Your task to perform on an android device: Turn off the flashlight Image 0: 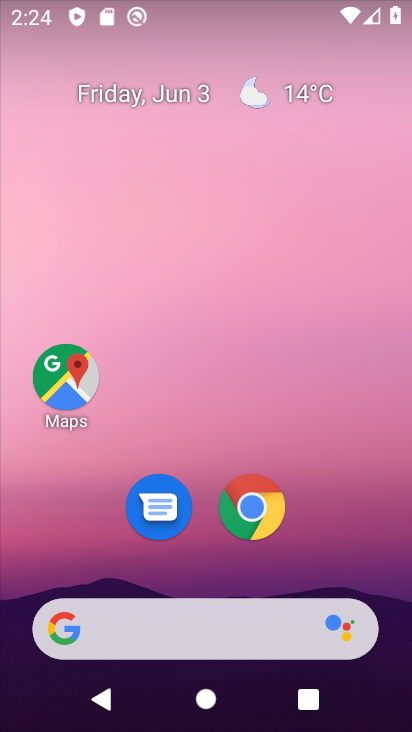
Step 0: drag from (330, 542) to (269, 160)
Your task to perform on an android device: Turn off the flashlight Image 1: 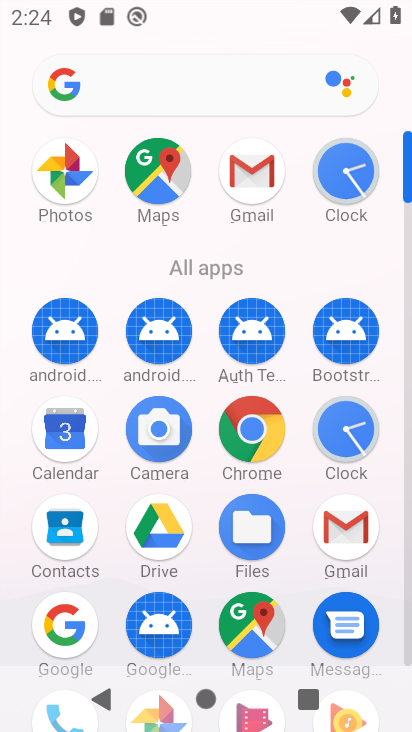
Step 1: drag from (283, 571) to (294, 286)
Your task to perform on an android device: Turn off the flashlight Image 2: 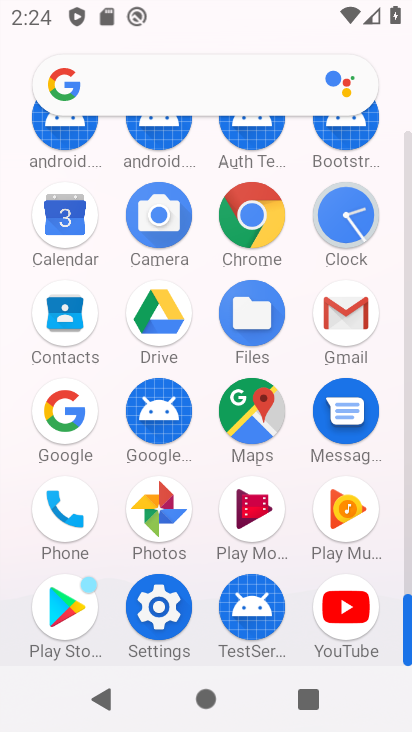
Step 2: click (157, 610)
Your task to perform on an android device: Turn off the flashlight Image 3: 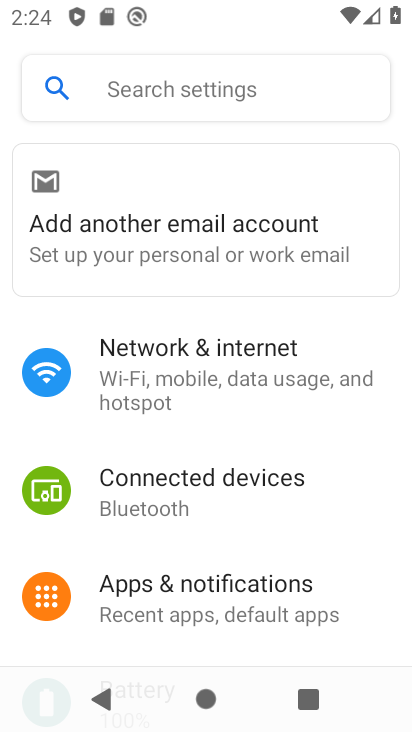
Step 3: drag from (228, 454) to (282, 336)
Your task to perform on an android device: Turn off the flashlight Image 4: 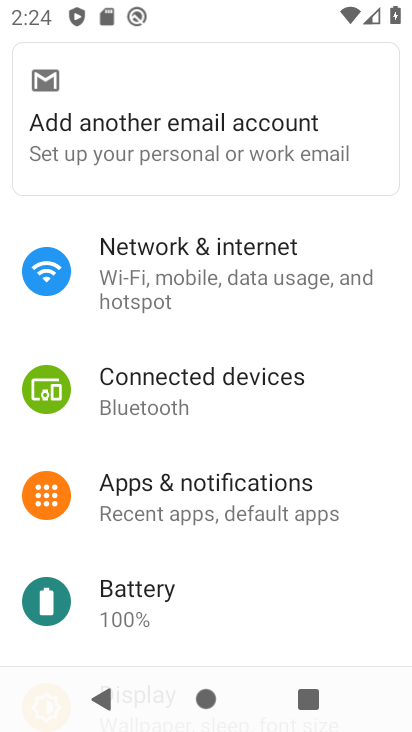
Step 4: drag from (213, 564) to (277, 421)
Your task to perform on an android device: Turn off the flashlight Image 5: 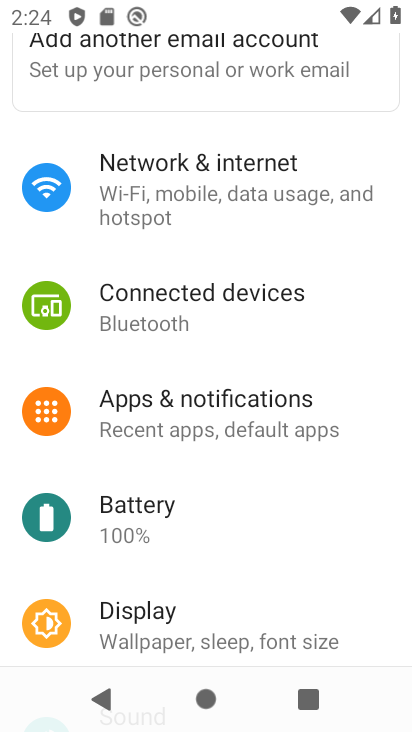
Step 5: drag from (218, 561) to (288, 441)
Your task to perform on an android device: Turn off the flashlight Image 6: 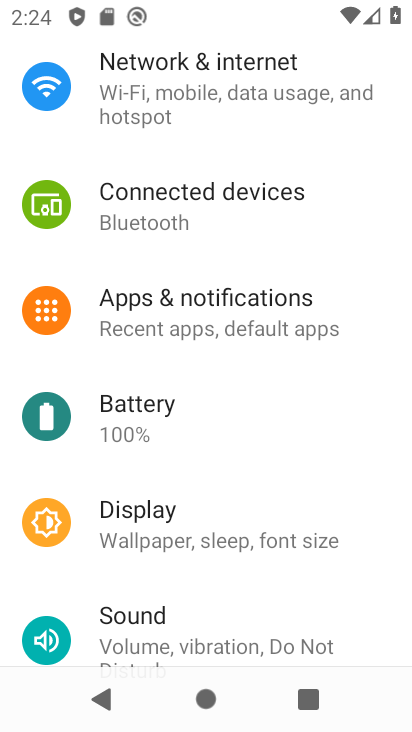
Step 6: drag from (255, 573) to (311, 472)
Your task to perform on an android device: Turn off the flashlight Image 7: 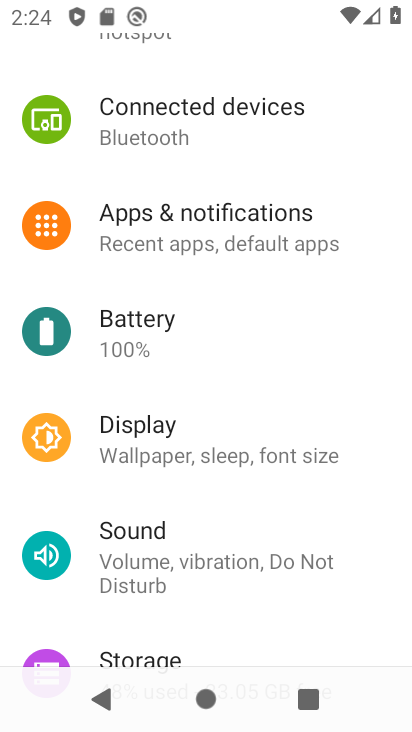
Step 7: click (302, 469)
Your task to perform on an android device: Turn off the flashlight Image 8: 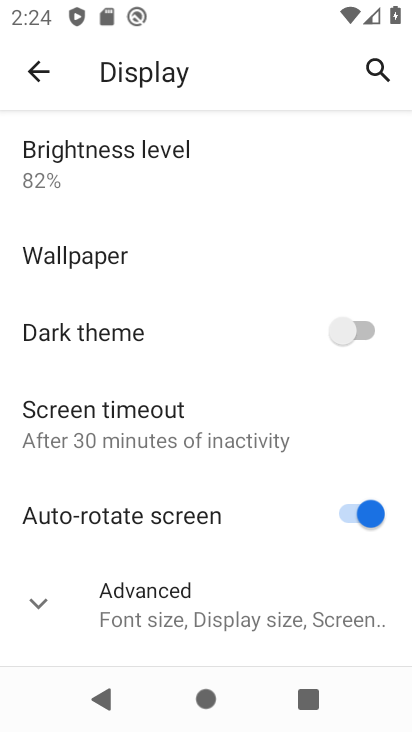
Step 8: click (242, 607)
Your task to perform on an android device: Turn off the flashlight Image 9: 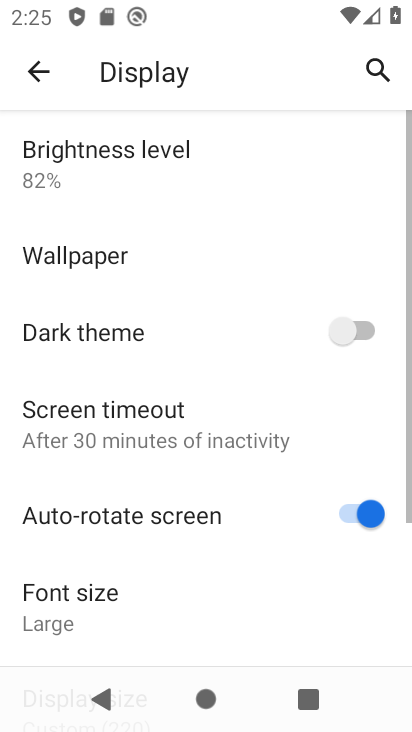
Step 9: drag from (241, 570) to (273, 349)
Your task to perform on an android device: Turn off the flashlight Image 10: 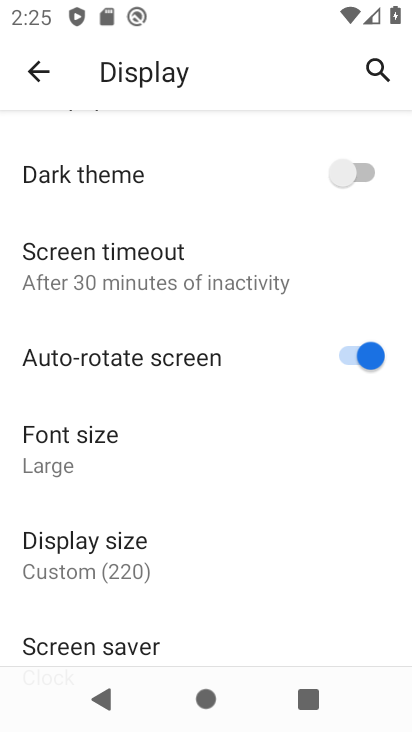
Step 10: drag from (244, 567) to (283, 396)
Your task to perform on an android device: Turn off the flashlight Image 11: 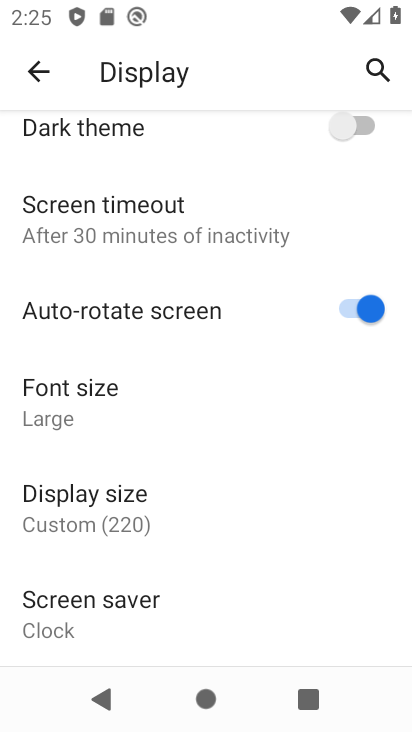
Step 11: drag from (304, 544) to (347, 267)
Your task to perform on an android device: Turn off the flashlight Image 12: 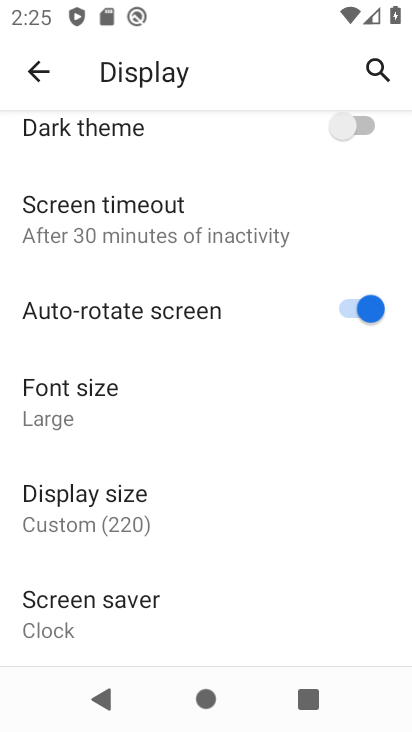
Step 12: click (52, 70)
Your task to perform on an android device: Turn off the flashlight Image 13: 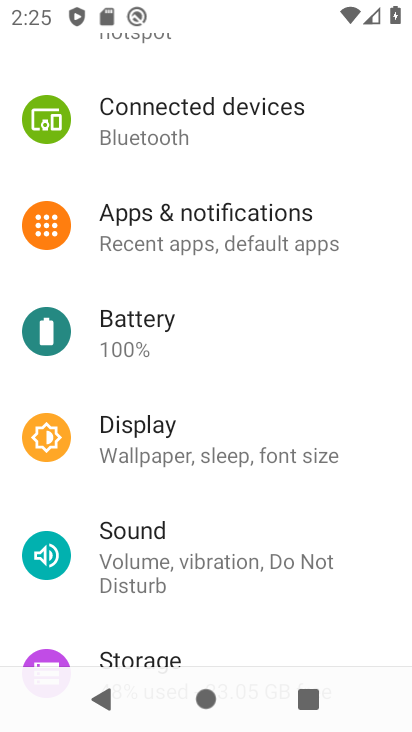
Step 13: drag from (213, 591) to (246, 455)
Your task to perform on an android device: Turn off the flashlight Image 14: 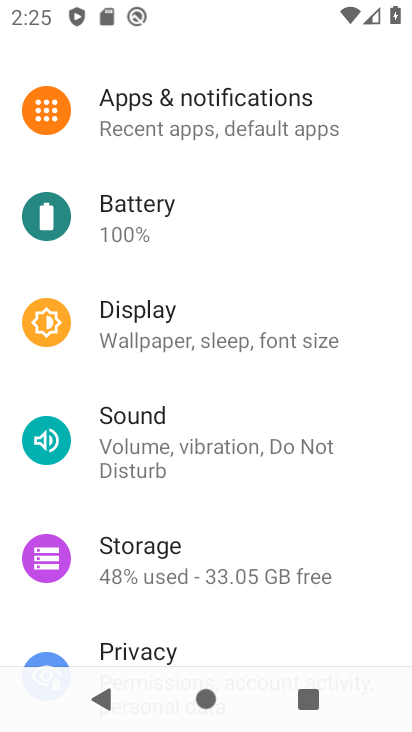
Step 14: drag from (212, 608) to (289, 469)
Your task to perform on an android device: Turn off the flashlight Image 15: 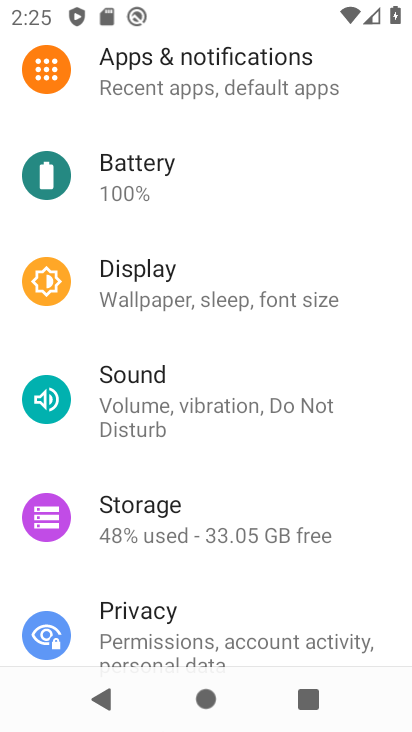
Step 15: drag from (215, 599) to (257, 420)
Your task to perform on an android device: Turn off the flashlight Image 16: 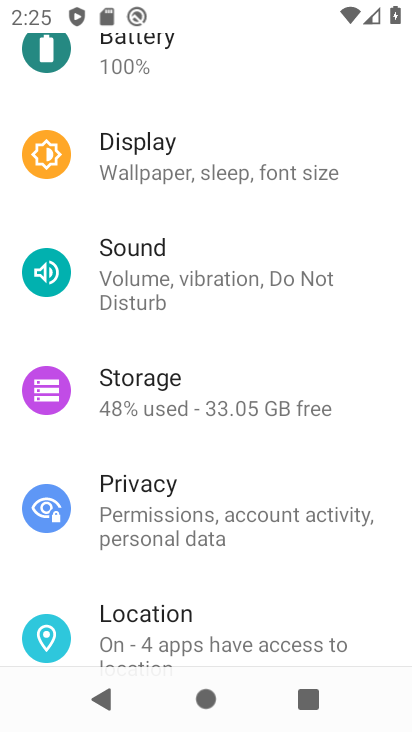
Step 16: drag from (184, 577) to (262, 424)
Your task to perform on an android device: Turn off the flashlight Image 17: 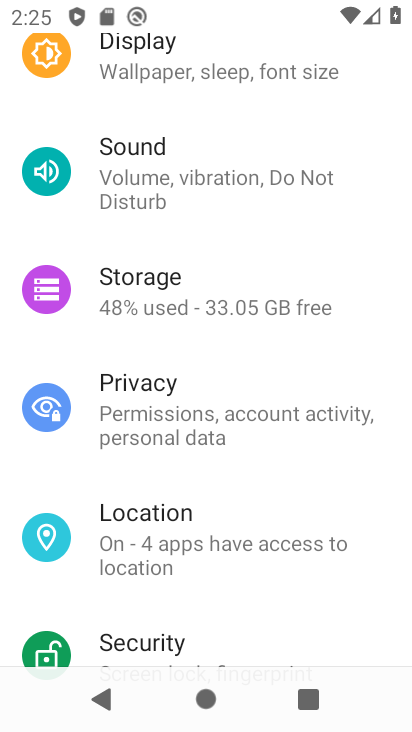
Step 17: drag from (171, 602) to (270, 449)
Your task to perform on an android device: Turn off the flashlight Image 18: 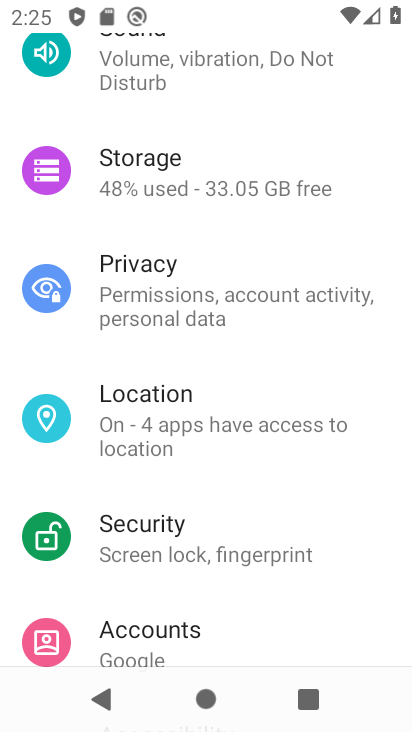
Step 18: drag from (173, 598) to (287, 465)
Your task to perform on an android device: Turn off the flashlight Image 19: 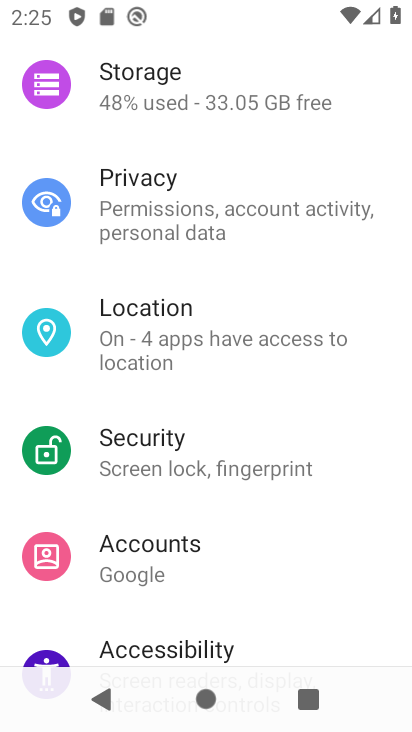
Step 19: drag from (153, 606) to (312, 436)
Your task to perform on an android device: Turn off the flashlight Image 20: 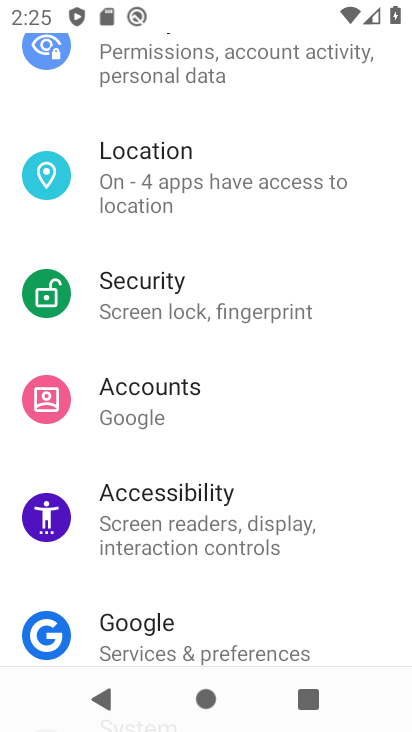
Step 20: click (220, 488)
Your task to perform on an android device: Turn off the flashlight Image 21: 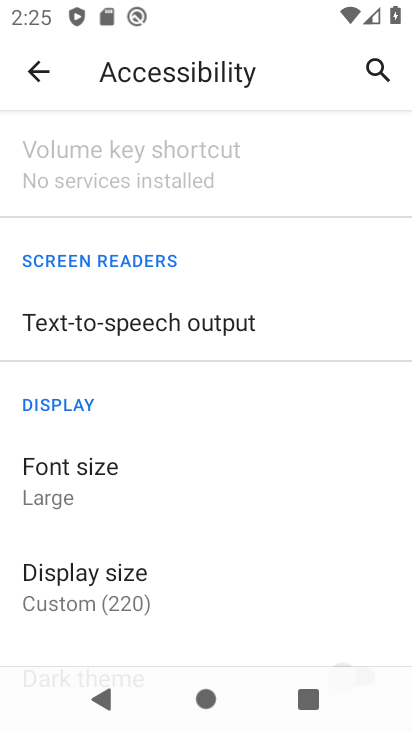
Step 21: task complete